Your task to perform on an android device: Go to display settings Image 0: 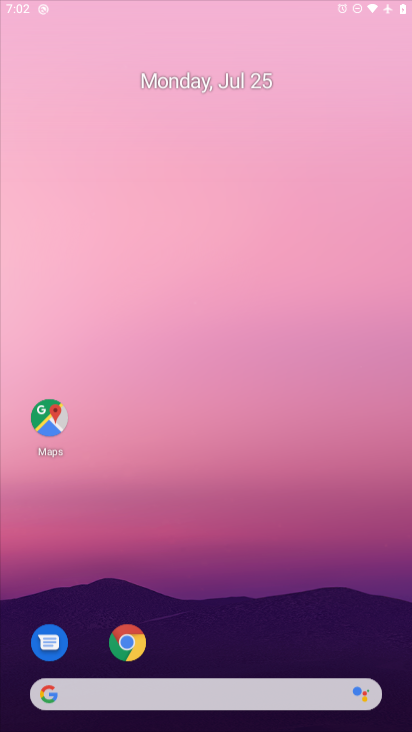
Step 0: press home button
Your task to perform on an android device: Go to display settings Image 1: 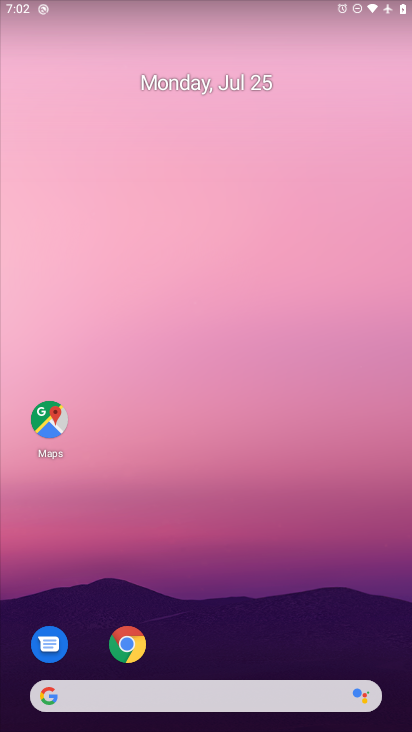
Step 1: drag from (248, 659) to (325, 178)
Your task to perform on an android device: Go to display settings Image 2: 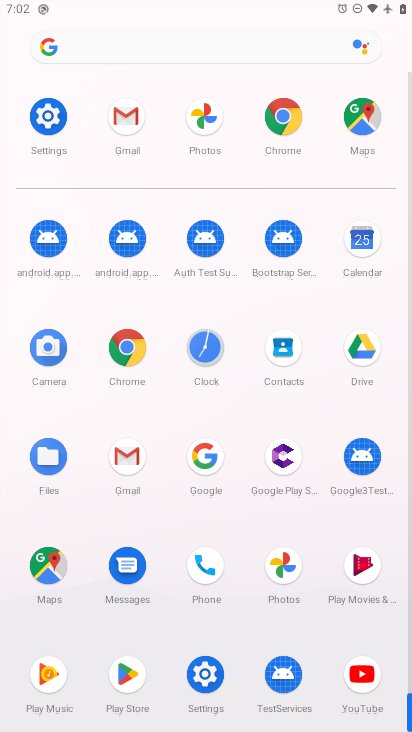
Step 2: click (47, 120)
Your task to perform on an android device: Go to display settings Image 3: 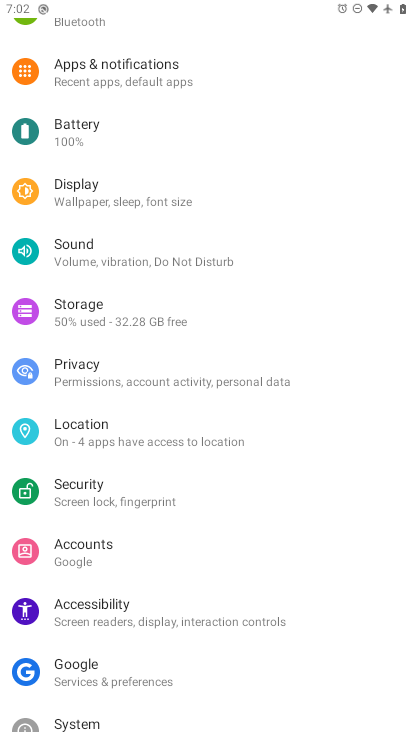
Step 3: click (70, 184)
Your task to perform on an android device: Go to display settings Image 4: 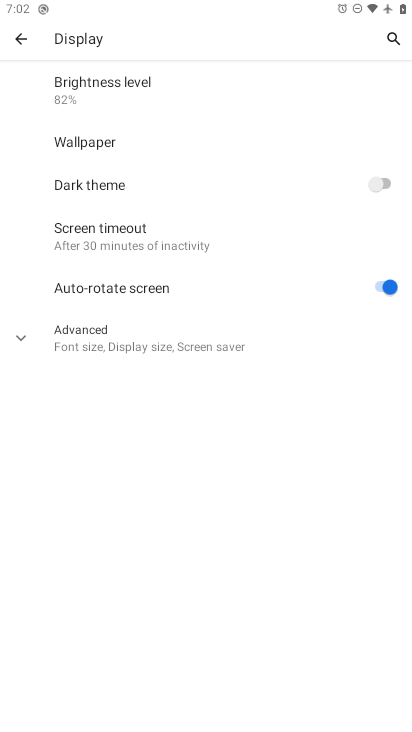
Step 4: task complete